Your task to perform on an android device: turn on bluetooth scan Image 0: 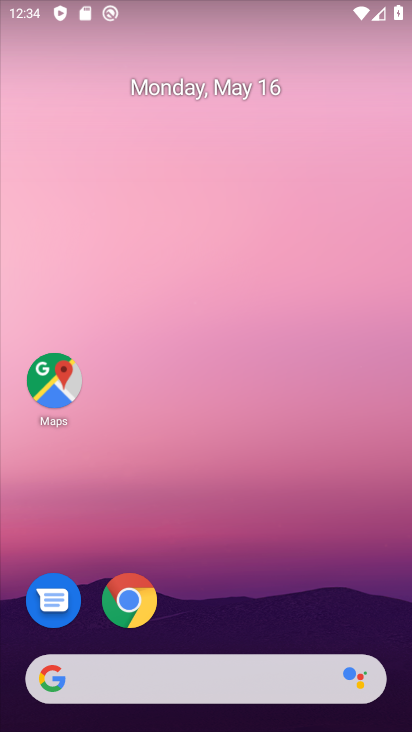
Step 0: drag from (334, 626) to (365, 88)
Your task to perform on an android device: turn on bluetooth scan Image 1: 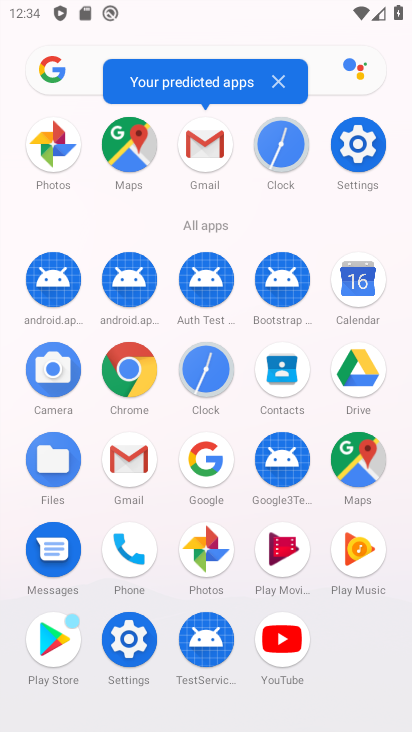
Step 1: click (362, 152)
Your task to perform on an android device: turn on bluetooth scan Image 2: 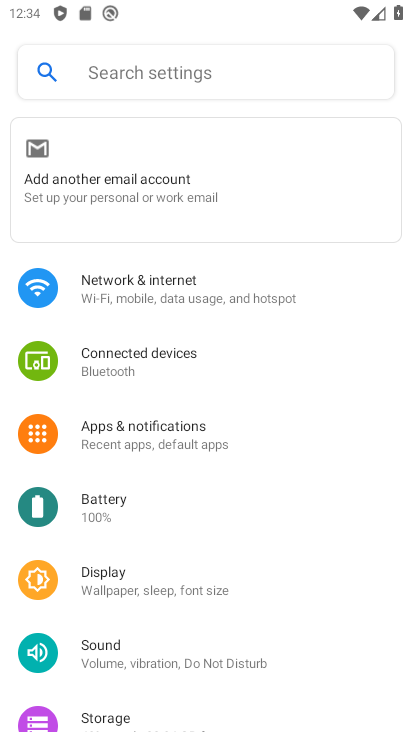
Step 2: drag from (317, 601) to (333, 427)
Your task to perform on an android device: turn on bluetooth scan Image 3: 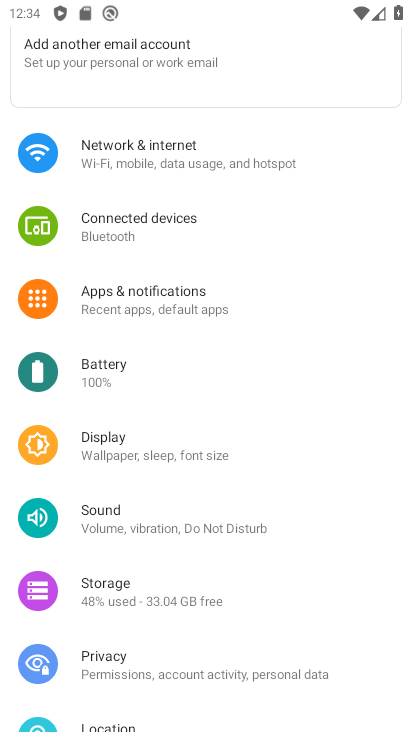
Step 3: drag from (310, 579) to (328, 400)
Your task to perform on an android device: turn on bluetooth scan Image 4: 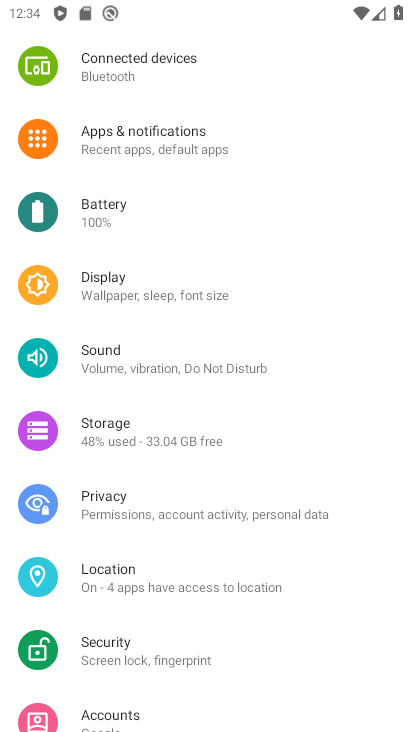
Step 4: drag from (328, 599) to (344, 449)
Your task to perform on an android device: turn on bluetooth scan Image 5: 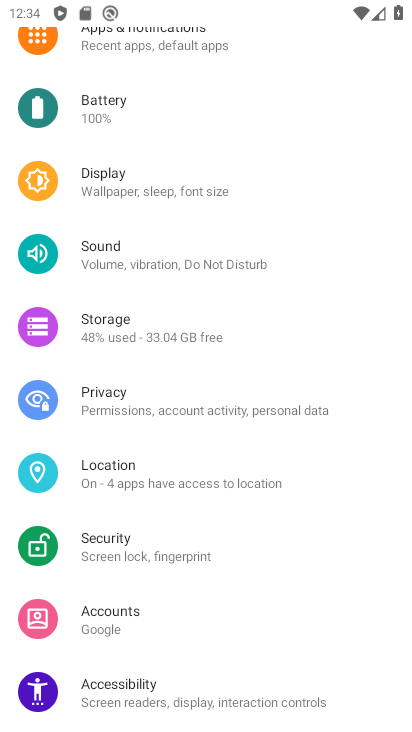
Step 5: drag from (338, 610) to (359, 411)
Your task to perform on an android device: turn on bluetooth scan Image 6: 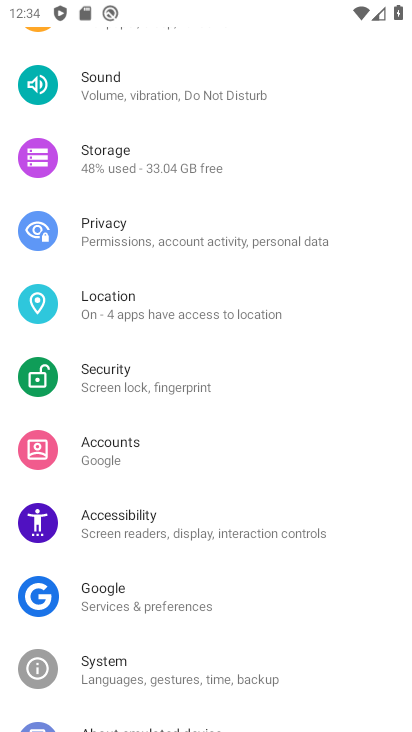
Step 6: drag from (327, 606) to (349, 450)
Your task to perform on an android device: turn on bluetooth scan Image 7: 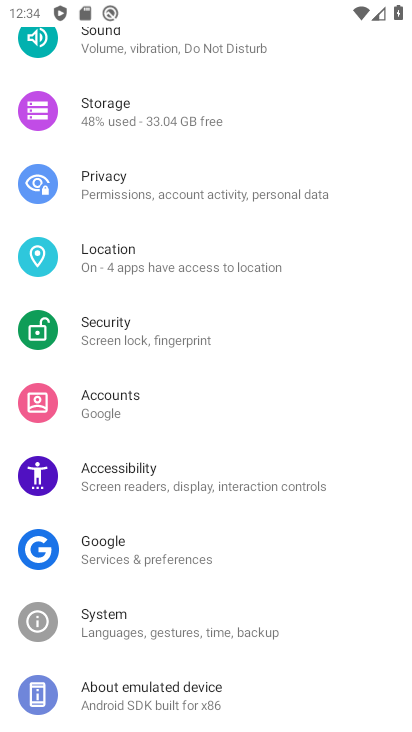
Step 7: drag from (325, 638) to (340, 446)
Your task to perform on an android device: turn on bluetooth scan Image 8: 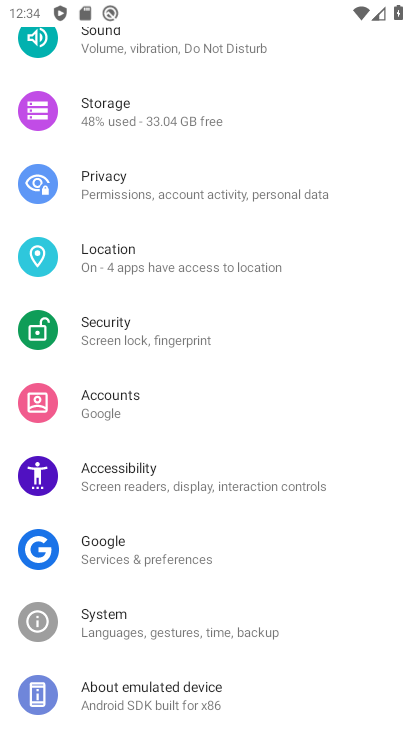
Step 8: click (137, 260)
Your task to perform on an android device: turn on bluetooth scan Image 9: 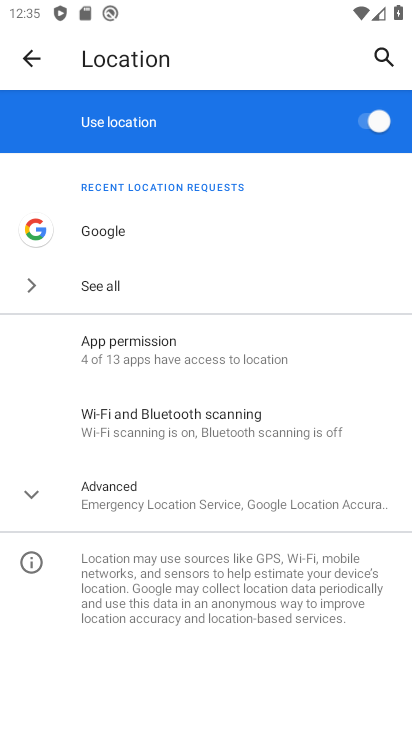
Step 9: click (227, 422)
Your task to perform on an android device: turn on bluetooth scan Image 10: 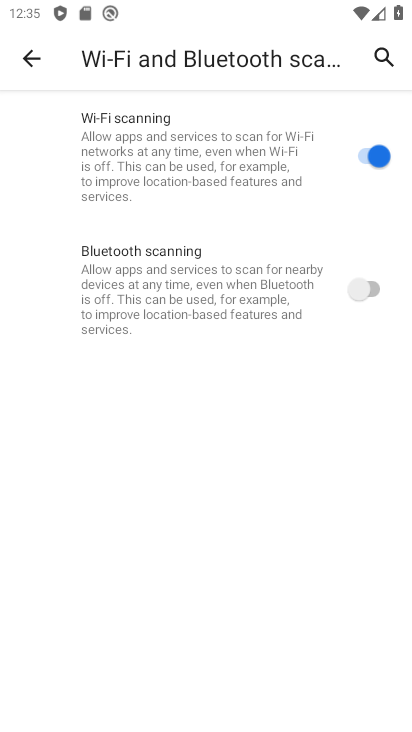
Step 10: click (353, 291)
Your task to perform on an android device: turn on bluetooth scan Image 11: 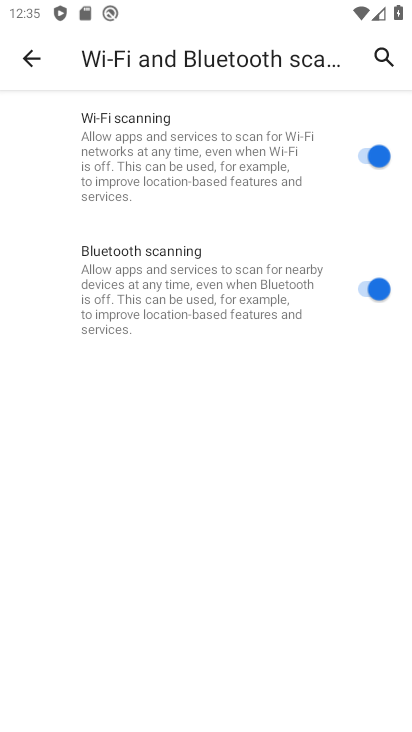
Step 11: task complete